Your task to perform on an android device: move an email to a new category in the gmail app Image 0: 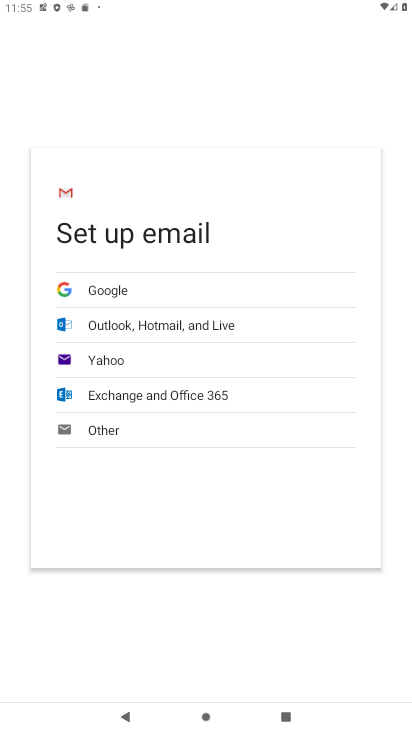
Step 0: task complete